Your task to perform on an android device: Go to Google maps Image 0: 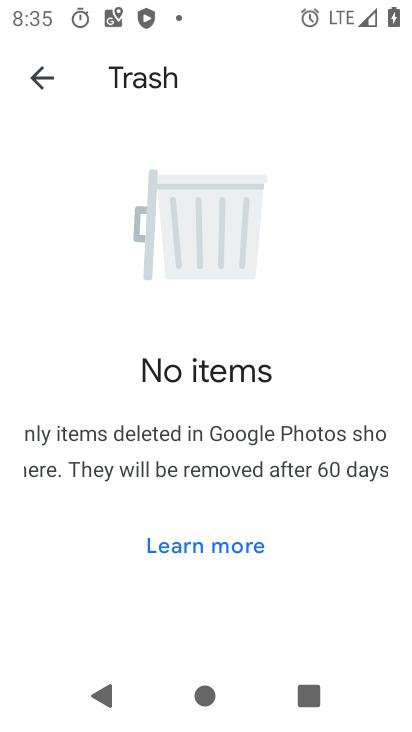
Step 0: press home button
Your task to perform on an android device: Go to Google maps Image 1: 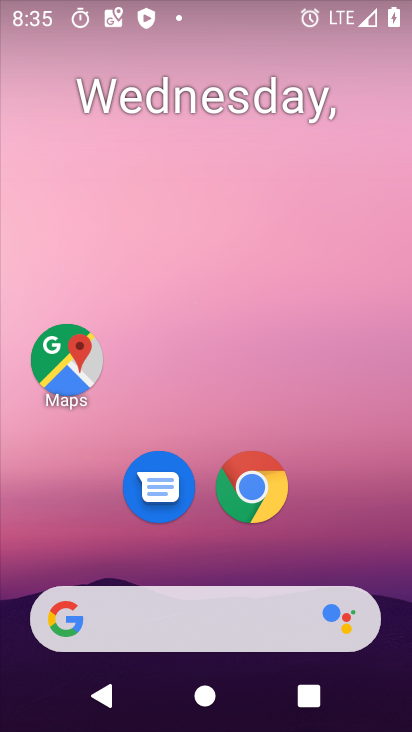
Step 1: click (72, 356)
Your task to perform on an android device: Go to Google maps Image 2: 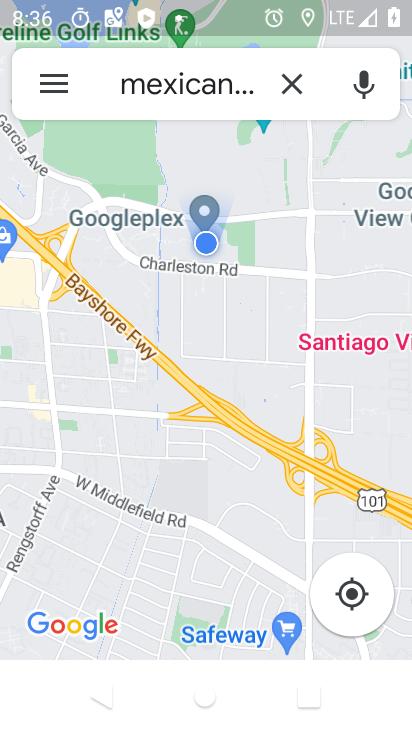
Step 2: task complete